Your task to perform on an android device: open device folders in google photos Image 0: 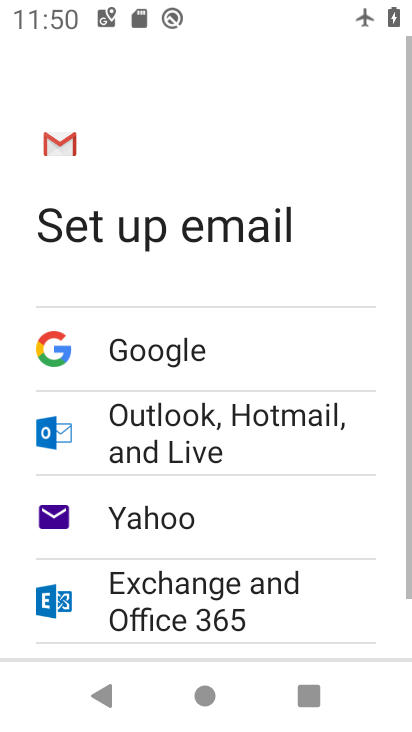
Step 0: press home button
Your task to perform on an android device: open device folders in google photos Image 1: 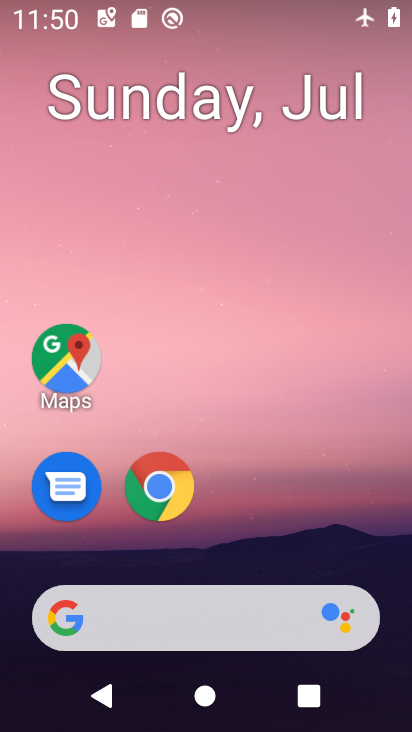
Step 1: drag from (377, 542) to (362, 142)
Your task to perform on an android device: open device folders in google photos Image 2: 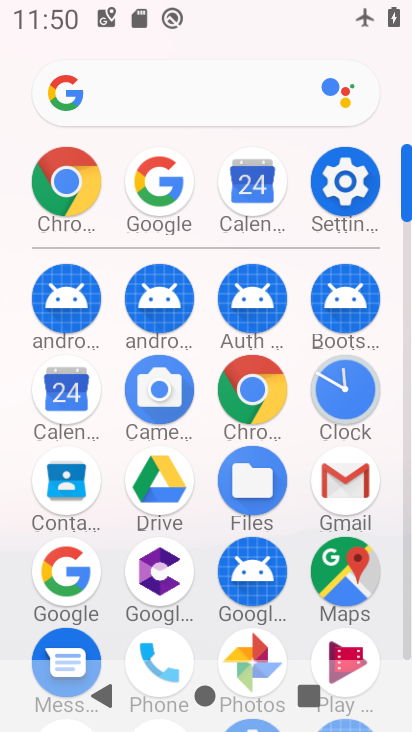
Step 2: drag from (402, 549) to (393, 449)
Your task to perform on an android device: open device folders in google photos Image 3: 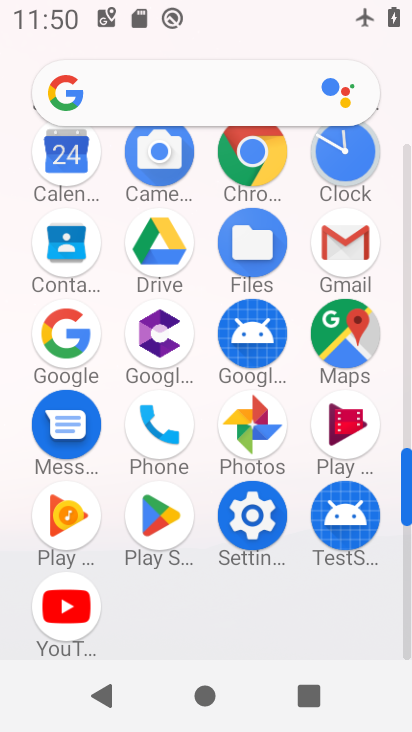
Step 3: click (262, 420)
Your task to perform on an android device: open device folders in google photos Image 4: 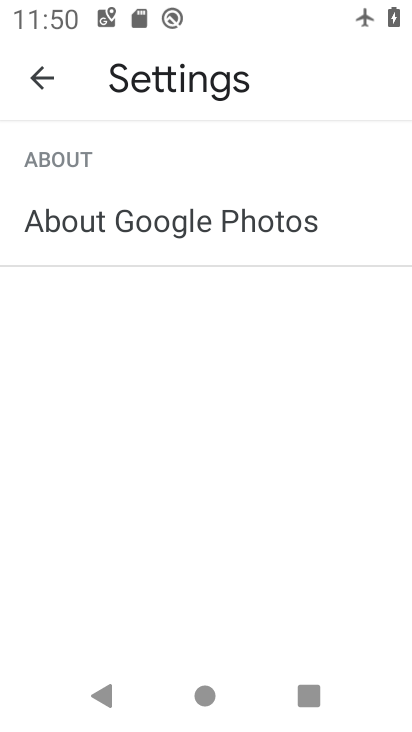
Step 4: press back button
Your task to perform on an android device: open device folders in google photos Image 5: 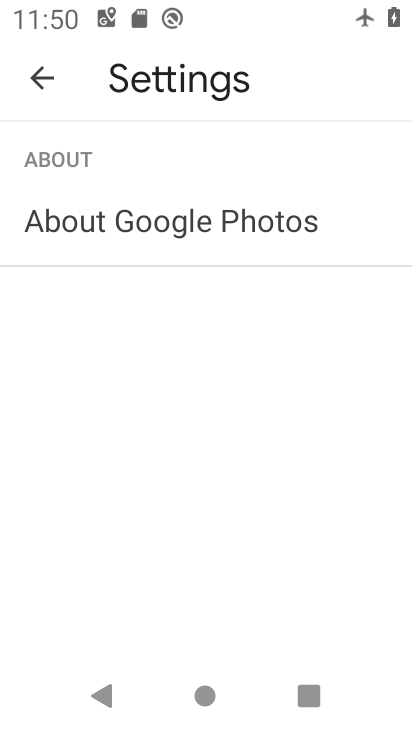
Step 5: press back button
Your task to perform on an android device: open device folders in google photos Image 6: 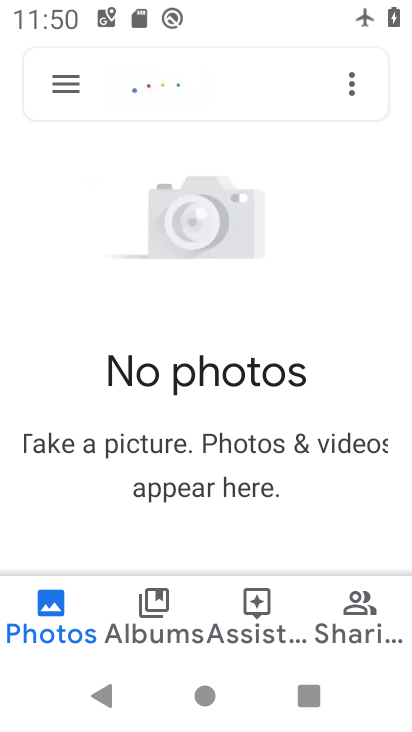
Step 6: click (53, 75)
Your task to perform on an android device: open device folders in google photos Image 7: 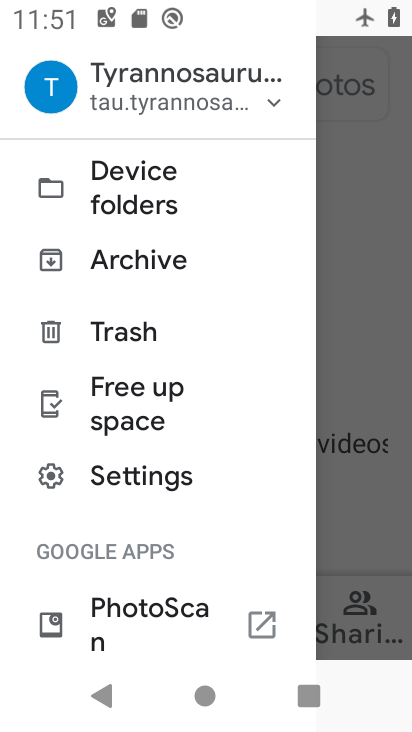
Step 7: click (176, 178)
Your task to perform on an android device: open device folders in google photos Image 8: 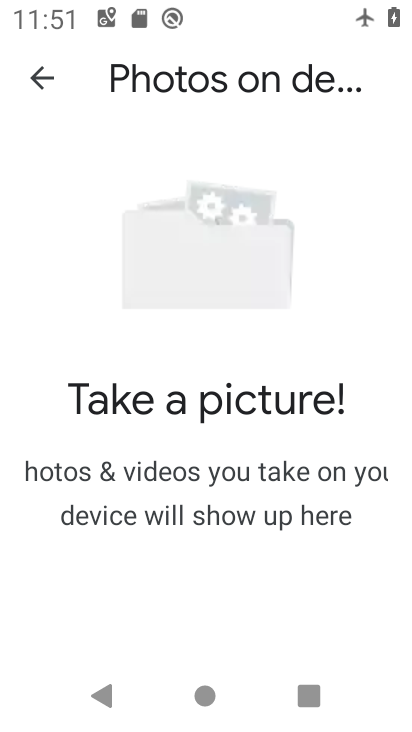
Step 8: task complete